Your task to perform on an android device: toggle priority inbox in the gmail app Image 0: 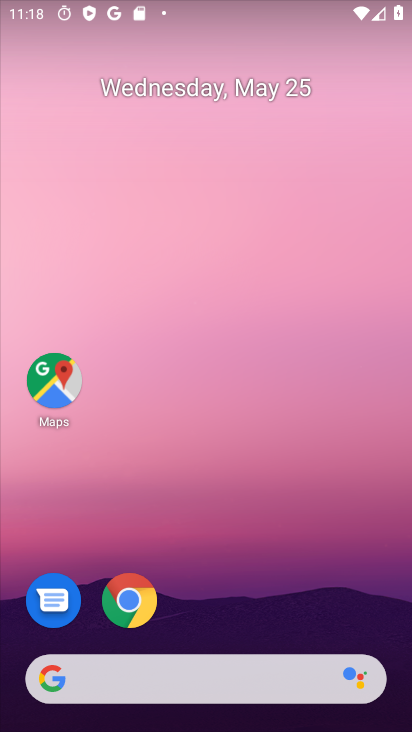
Step 0: drag from (247, 611) to (315, 1)
Your task to perform on an android device: toggle priority inbox in the gmail app Image 1: 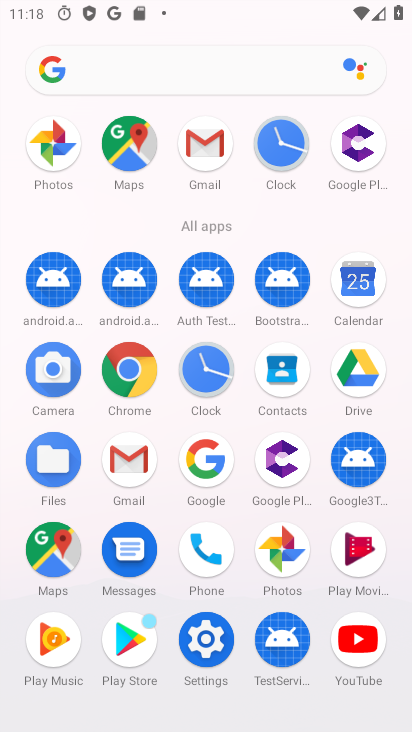
Step 1: click (117, 453)
Your task to perform on an android device: toggle priority inbox in the gmail app Image 2: 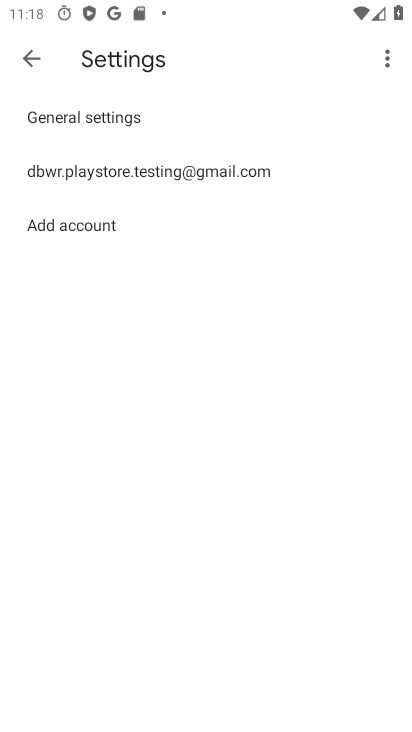
Step 2: click (188, 170)
Your task to perform on an android device: toggle priority inbox in the gmail app Image 3: 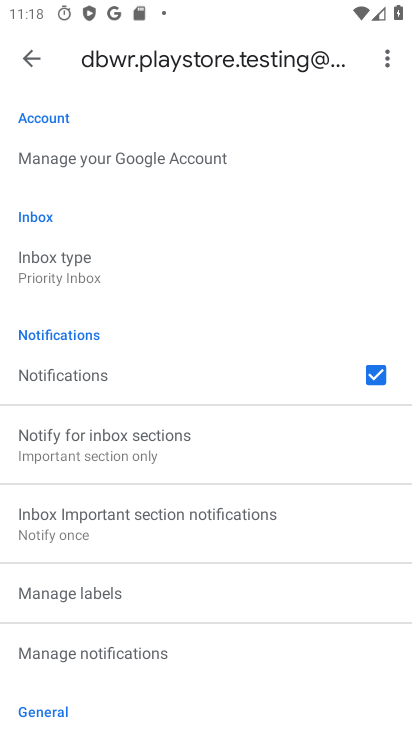
Step 3: click (77, 267)
Your task to perform on an android device: toggle priority inbox in the gmail app Image 4: 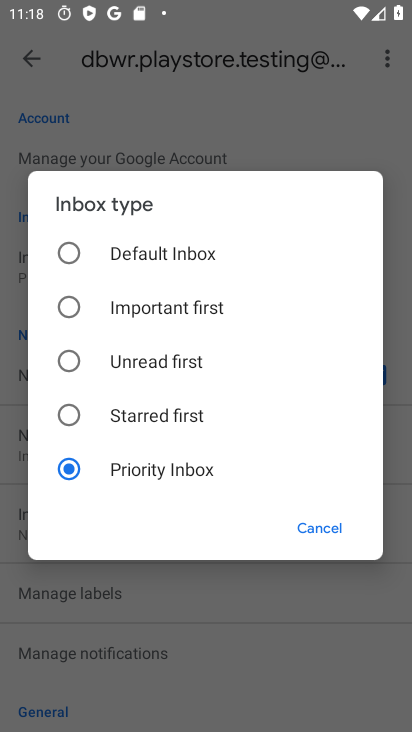
Step 4: click (85, 243)
Your task to perform on an android device: toggle priority inbox in the gmail app Image 5: 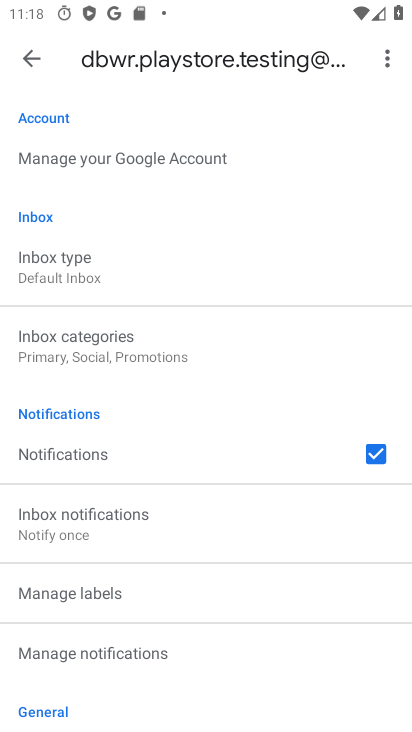
Step 5: task complete